Your task to perform on an android device: Turn off the flashlight Image 0: 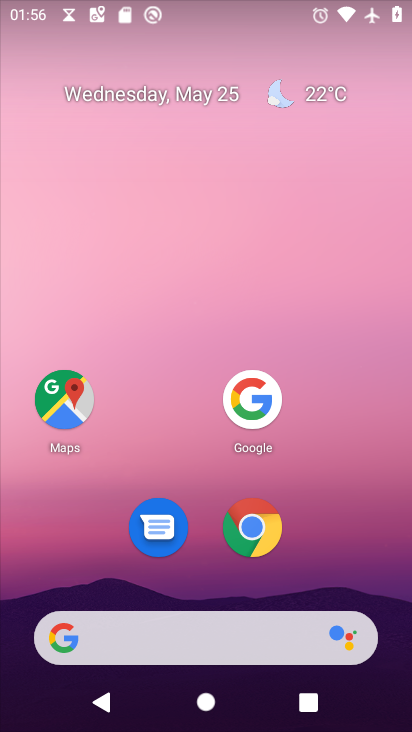
Step 0: press home button
Your task to perform on an android device: Turn off the flashlight Image 1: 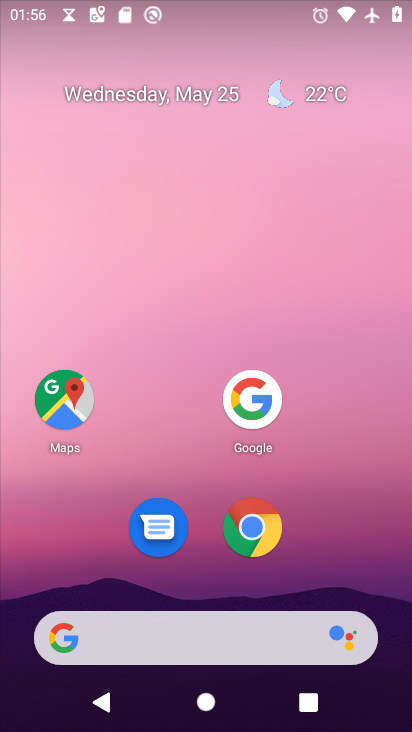
Step 1: task complete